Your task to perform on an android device: Go to Android settings Image 0: 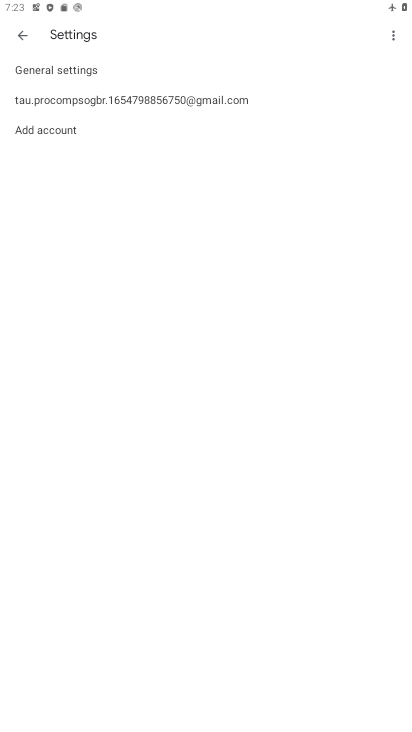
Step 0: press home button
Your task to perform on an android device: Go to Android settings Image 1: 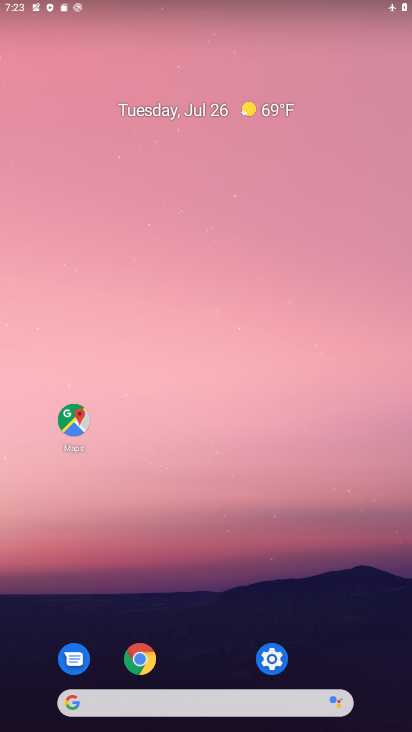
Step 1: click (275, 657)
Your task to perform on an android device: Go to Android settings Image 2: 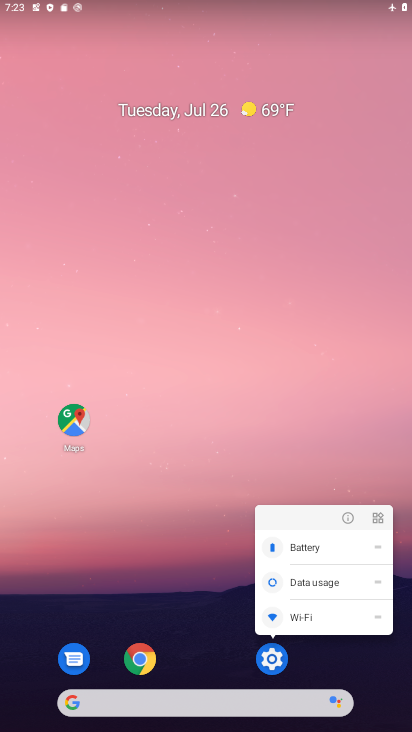
Step 2: click (267, 665)
Your task to perform on an android device: Go to Android settings Image 3: 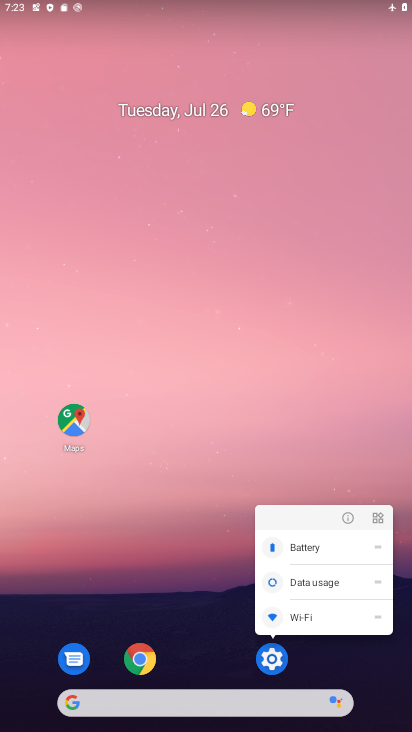
Step 3: click (267, 665)
Your task to perform on an android device: Go to Android settings Image 4: 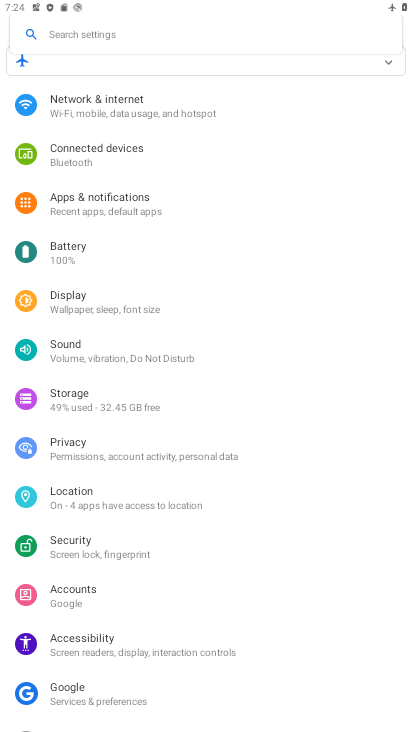
Step 4: click (92, 34)
Your task to perform on an android device: Go to Android settings Image 5: 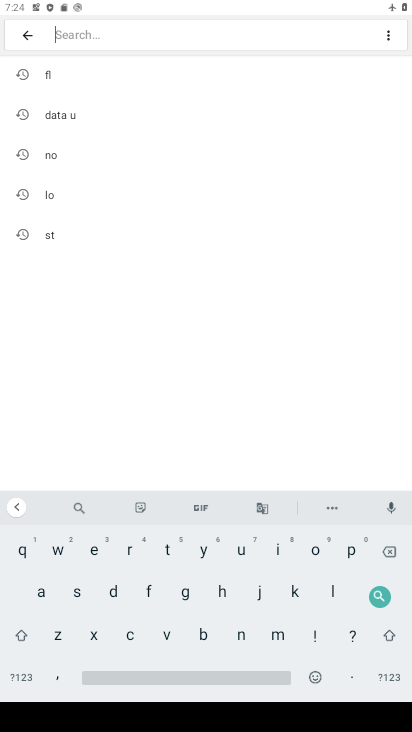
Step 5: click (35, 589)
Your task to perform on an android device: Go to Android settings Image 6: 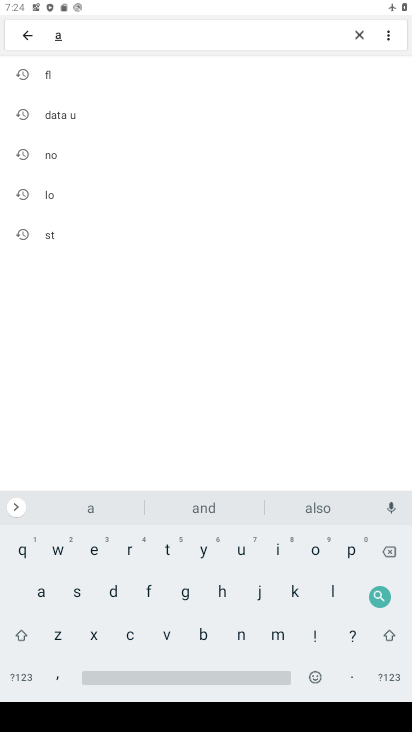
Step 6: click (241, 638)
Your task to perform on an android device: Go to Android settings Image 7: 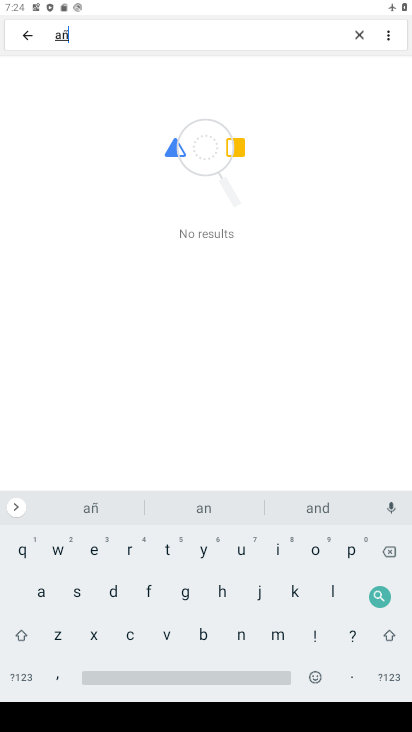
Step 7: click (384, 552)
Your task to perform on an android device: Go to Android settings Image 8: 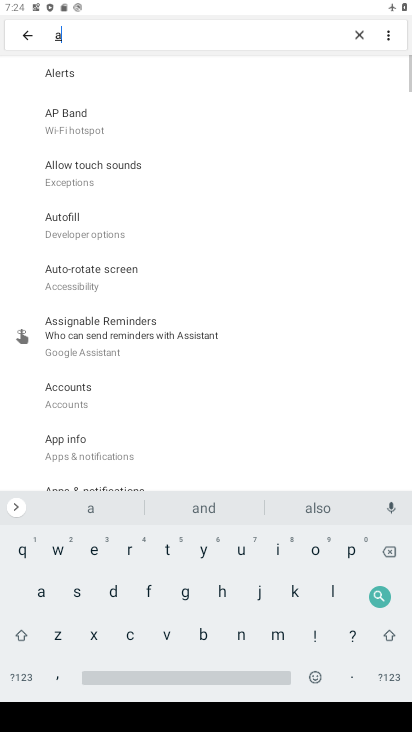
Step 8: click (244, 638)
Your task to perform on an android device: Go to Android settings Image 9: 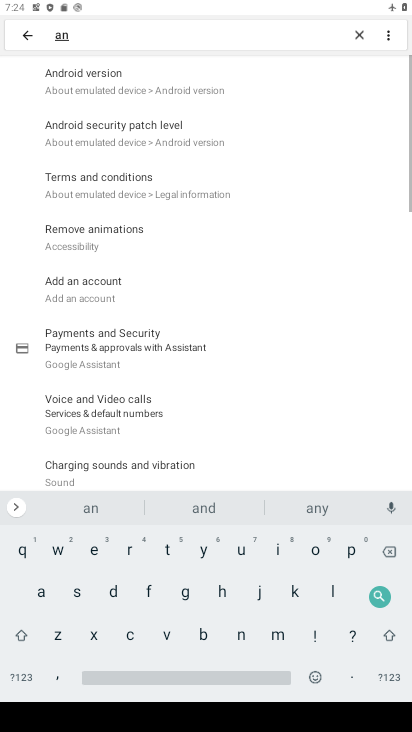
Step 9: click (82, 78)
Your task to perform on an android device: Go to Android settings Image 10: 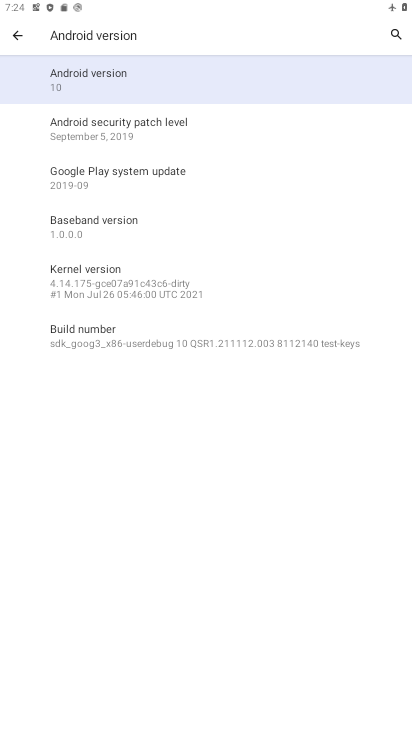
Step 10: click (82, 78)
Your task to perform on an android device: Go to Android settings Image 11: 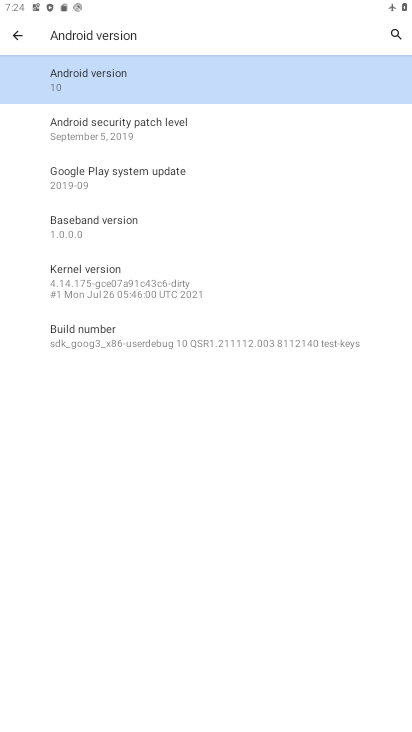
Step 11: task complete